Your task to perform on an android device: Open calendar and show me the fourth week of next month Image 0: 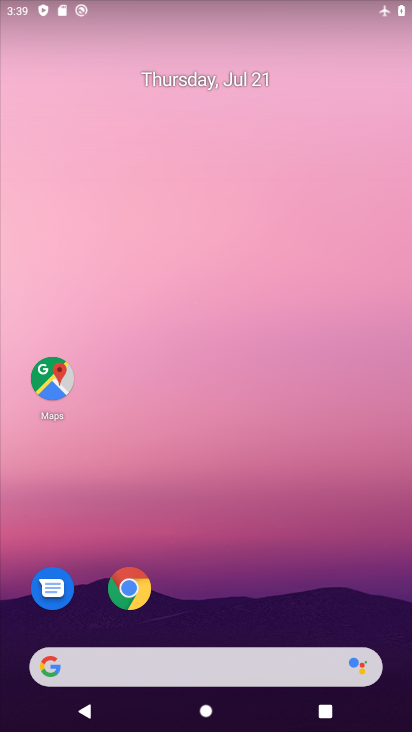
Step 0: drag from (238, 578) to (216, 83)
Your task to perform on an android device: Open calendar and show me the fourth week of next month Image 1: 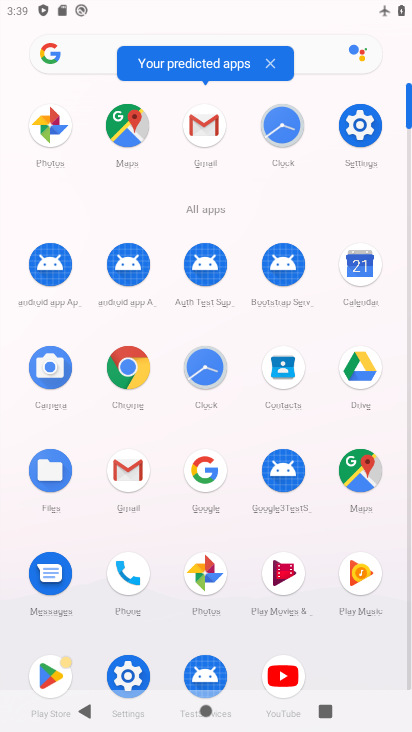
Step 1: click (355, 259)
Your task to perform on an android device: Open calendar and show me the fourth week of next month Image 2: 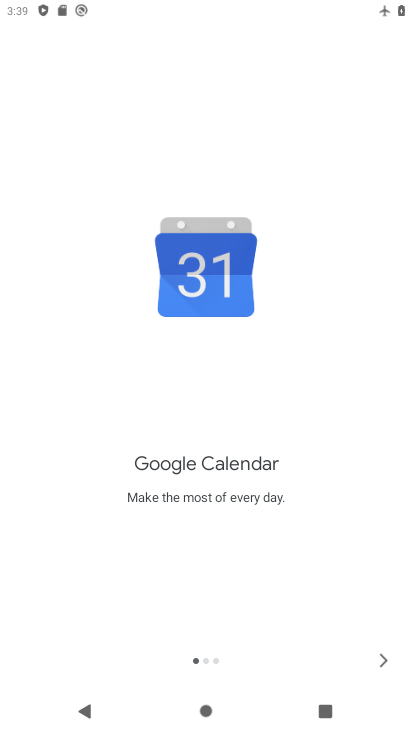
Step 2: click (380, 651)
Your task to perform on an android device: Open calendar and show me the fourth week of next month Image 3: 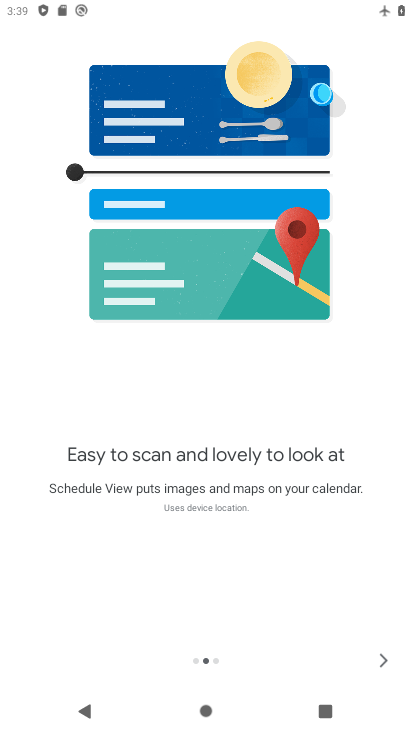
Step 3: click (380, 651)
Your task to perform on an android device: Open calendar and show me the fourth week of next month Image 4: 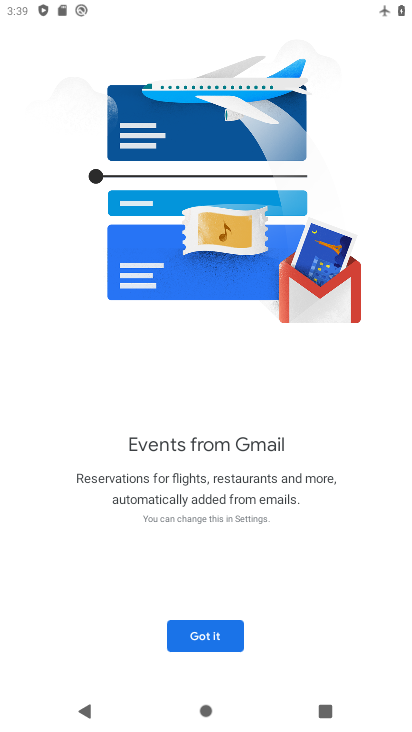
Step 4: click (236, 636)
Your task to perform on an android device: Open calendar and show me the fourth week of next month Image 5: 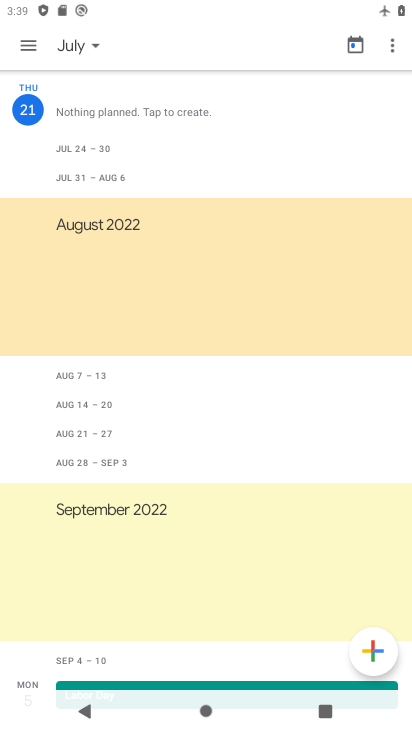
Step 5: click (97, 45)
Your task to perform on an android device: Open calendar and show me the fourth week of next month Image 6: 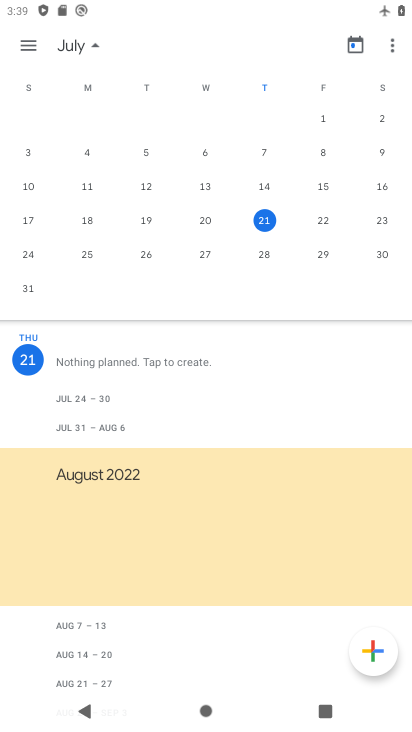
Step 6: drag from (341, 197) to (42, 180)
Your task to perform on an android device: Open calendar and show me the fourth week of next month Image 7: 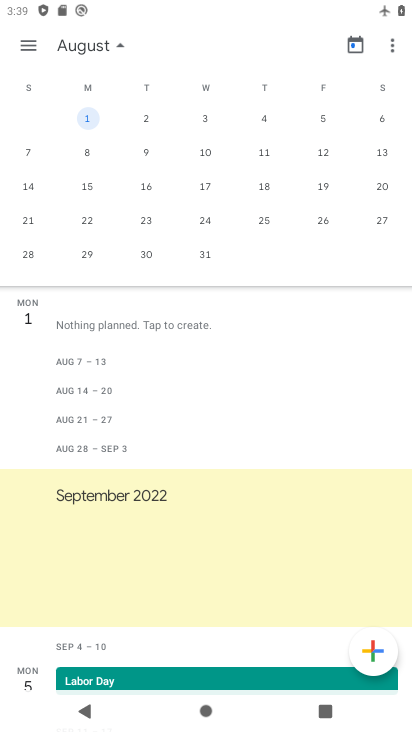
Step 7: click (82, 248)
Your task to perform on an android device: Open calendar and show me the fourth week of next month Image 8: 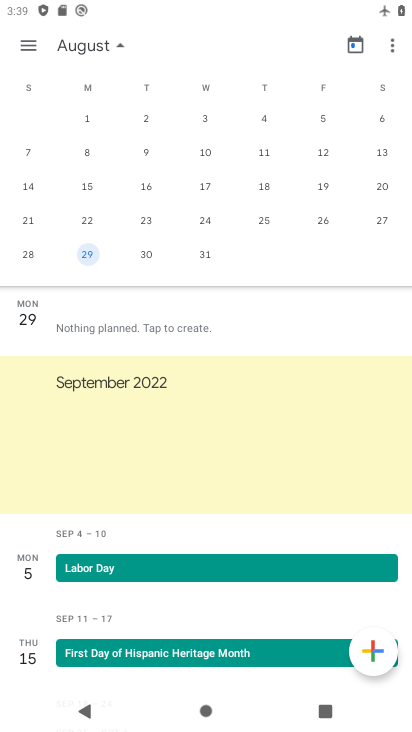
Step 8: task complete